Your task to perform on an android device: change timer sound Image 0: 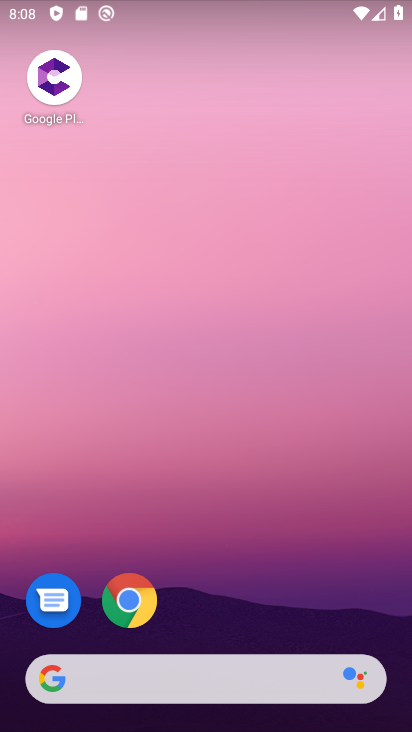
Step 0: drag from (210, 641) to (307, 12)
Your task to perform on an android device: change timer sound Image 1: 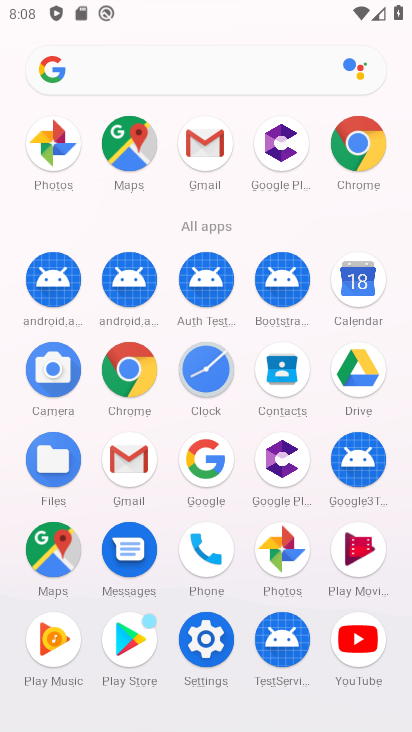
Step 1: click (219, 368)
Your task to perform on an android device: change timer sound Image 2: 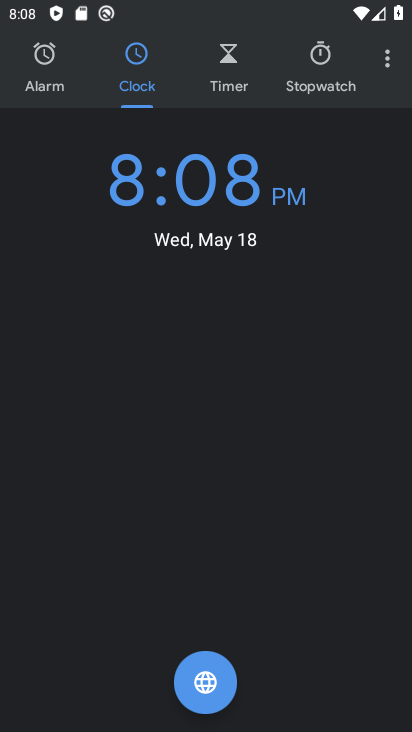
Step 2: click (391, 50)
Your task to perform on an android device: change timer sound Image 3: 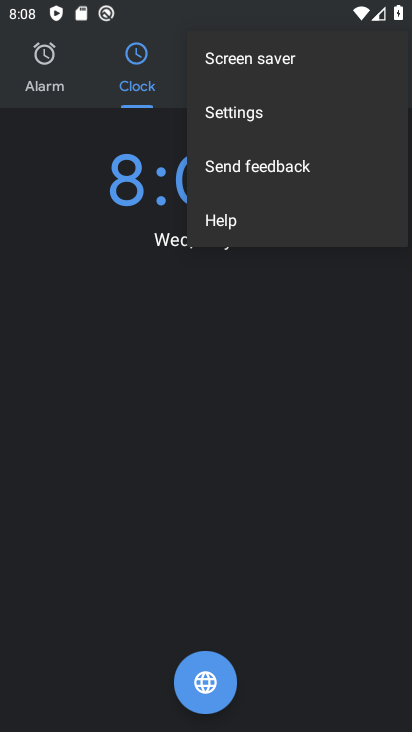
Step 3: click (254, 109)
Your task to perform on an android device: change timer sound Image 4: 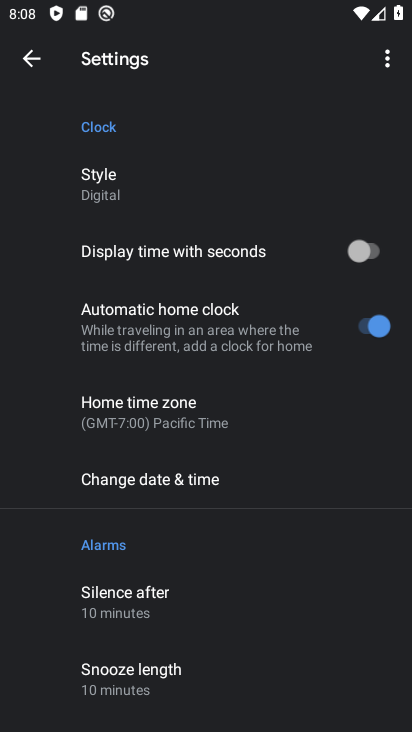
Step 4: drag from (215, 687) to (288, 177)
Your task to perform on an android device: change timer sound Image 5: 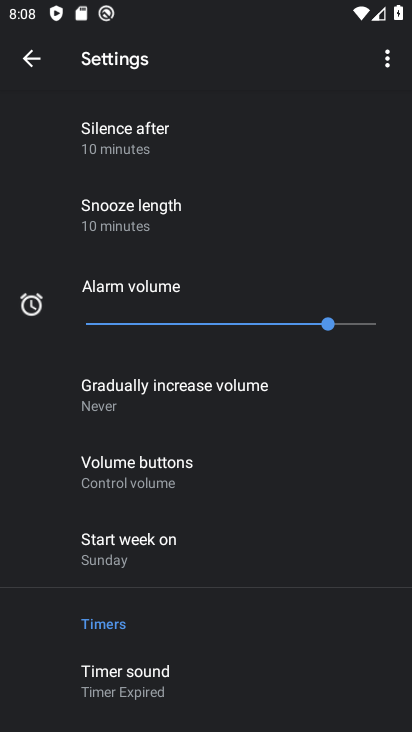
Step 5: click (152, 678)
Your task to perform on an android device: change timer sound Image 6: 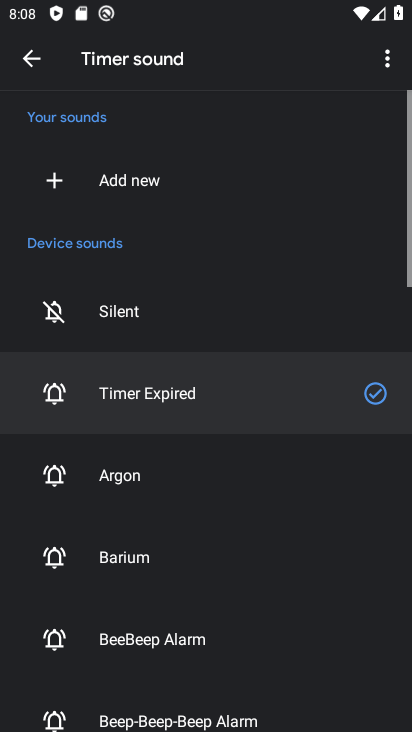
Step 6: click (138, 474)
Your task to perform on an android device: change timer sound Image 7: 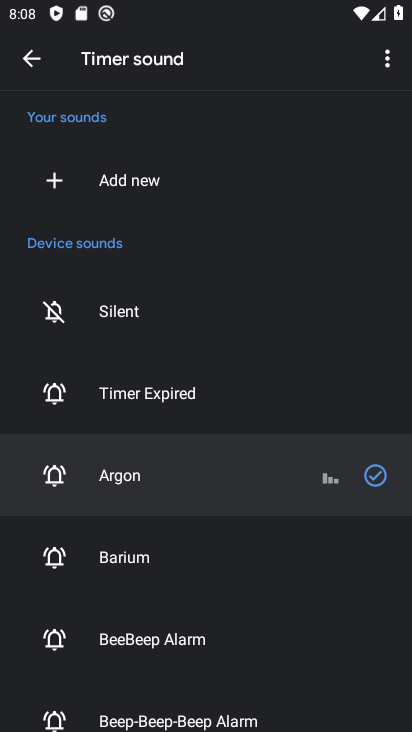
Step 7: task complete